Your task to perform on an android device: turn on data saver in the chrome app Image 0: 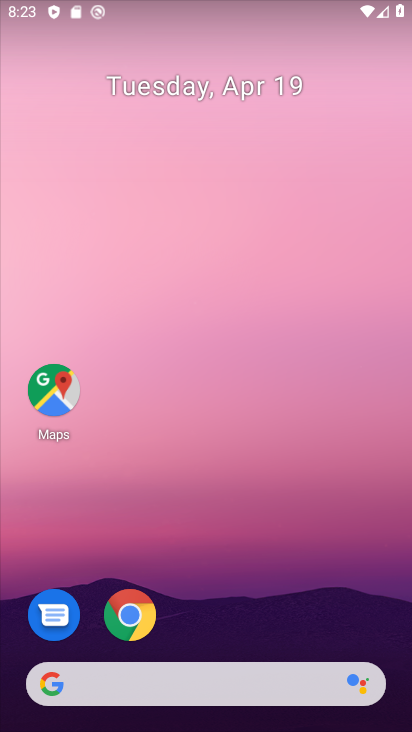
Step 0: click (123, 605)
Your task to perform on an android device: turn on data saver in the chrome app Image 1: 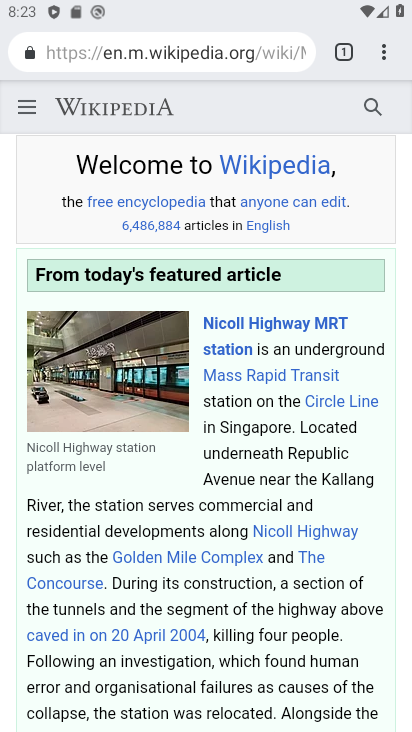
Step 1: click (390, 61)
Your task to perform on an android device: turn on data saver in the chrome app Image 2: 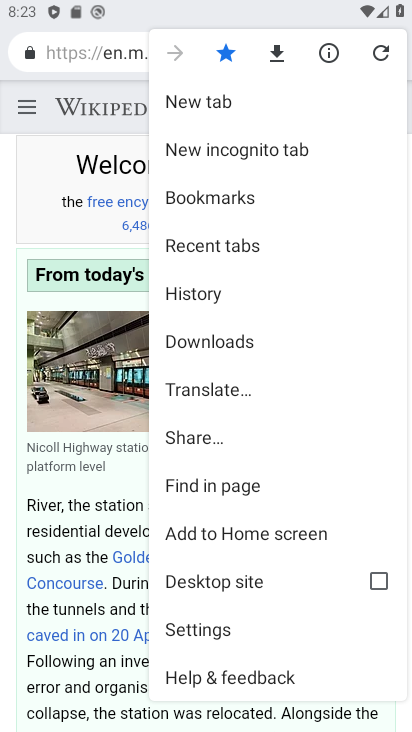
Step 2: click (210, 633)
Your task to perform on an android device: turn on data saver in the chrome app Image 3: 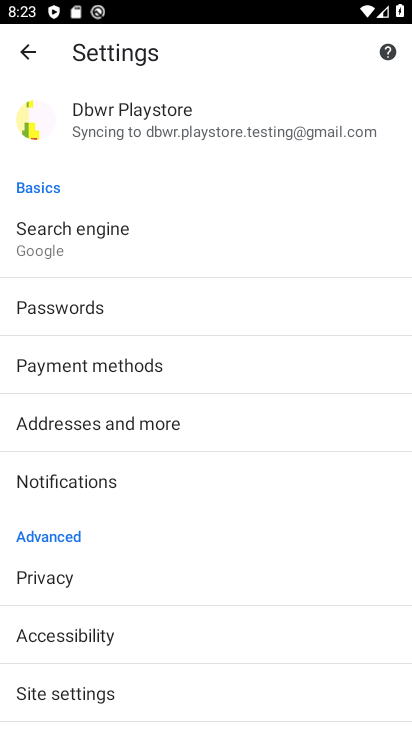
Step 3: drag from (138, 662) to (133, 382)
Your task to perform on an android device: turn on data saver in the chrome app Image 4: 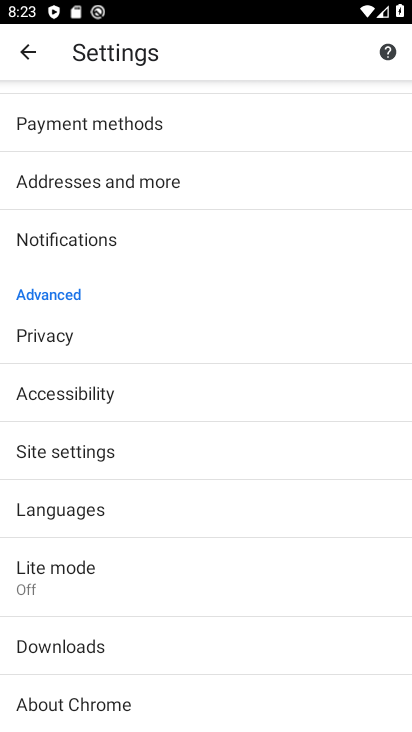
Step 4: click (78, 568)
Your task to perform on an android device: turn on data saver in the chrome app Image 5: 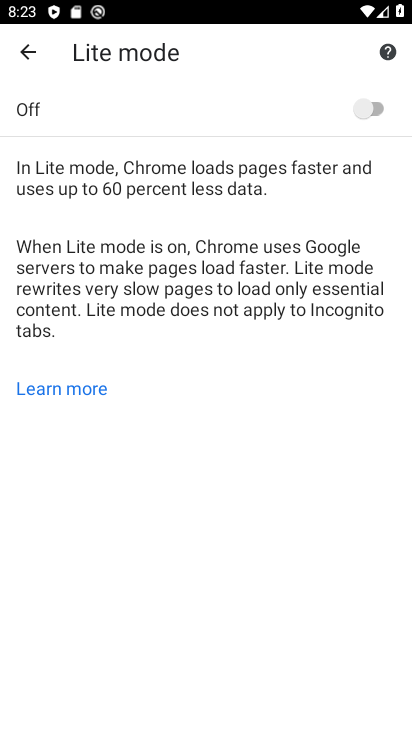
Step 5: click (365, 113)
Your task to perform on an android device: turn on data saver in the chrome app Image 6: 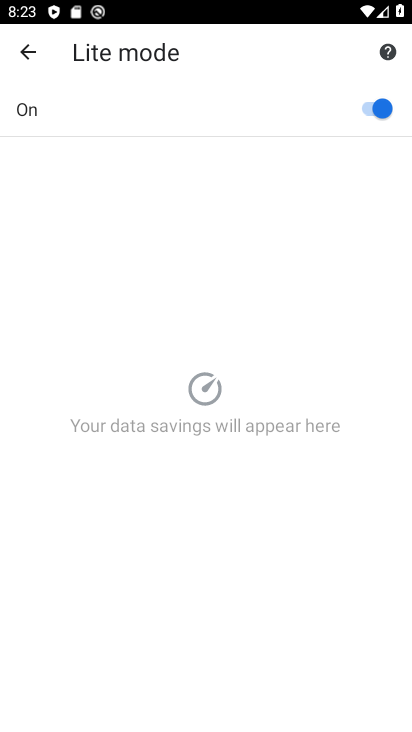
Step 6: task complete